Your task to perform on an android device: Go to sound settings Image 0: 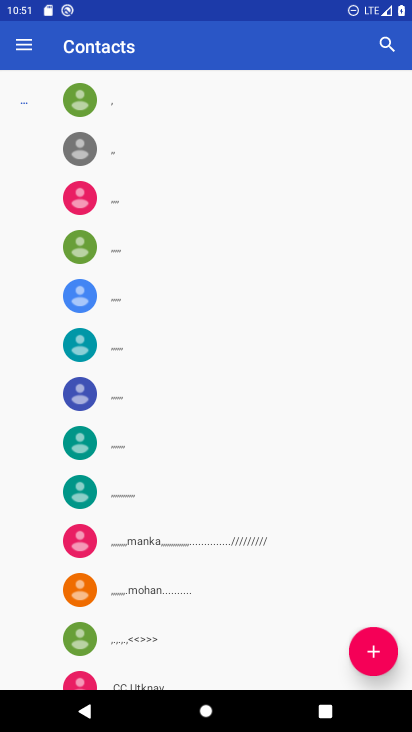
Step 0: press home button
Your task to perform on an android device: Go to sound settings Image 1: 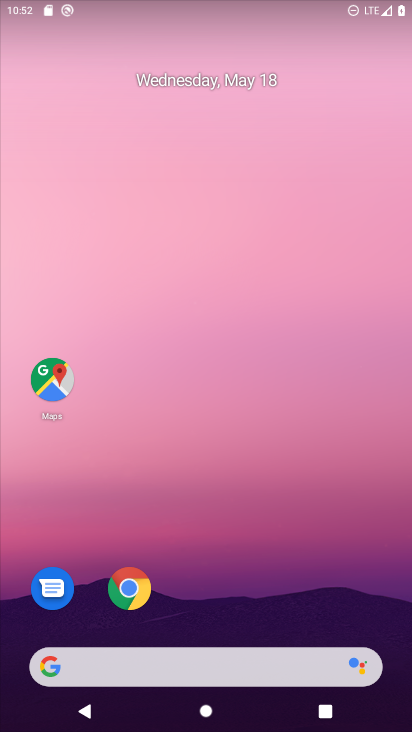
Step 1: drag from (366, 619) to (337, 18)
Your task to perform on an android device: Go to sound settings Image 2: 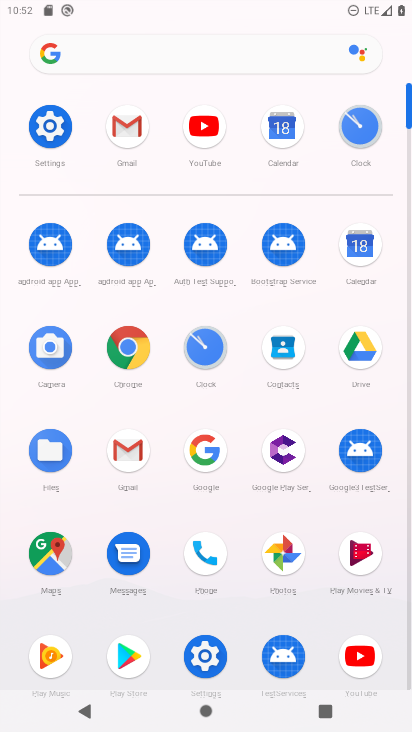
Step 2: click (44, 138)
Your task to perform on an android device: Go to sound settings Image 3: 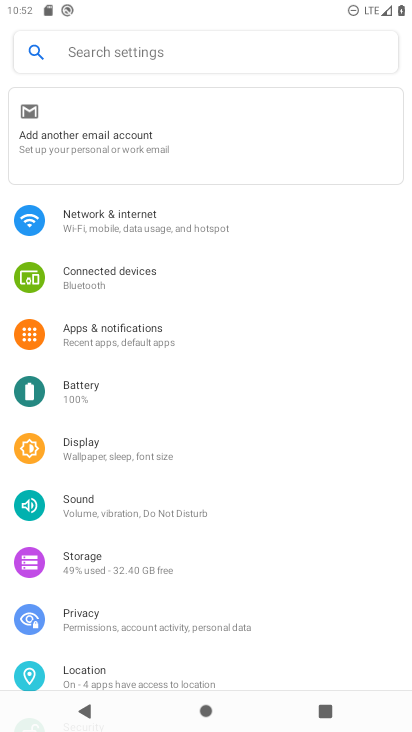
Step 3: click (72, 507)
Your task to perform on an android device: Go to sound settings Image 4: 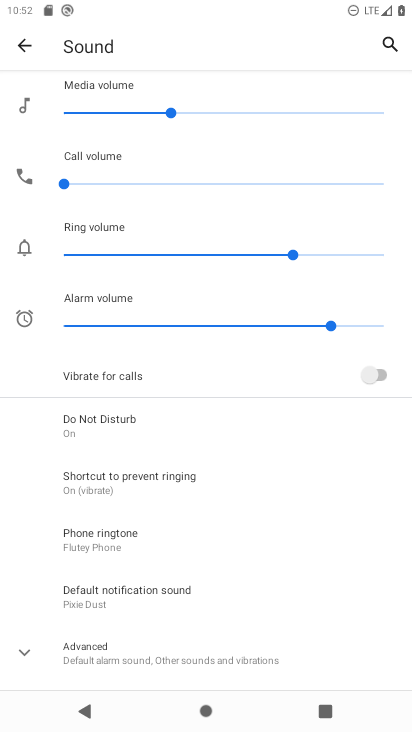
Step 4: task complete